Your task to perform on an android device: Go to display settings Image 0: 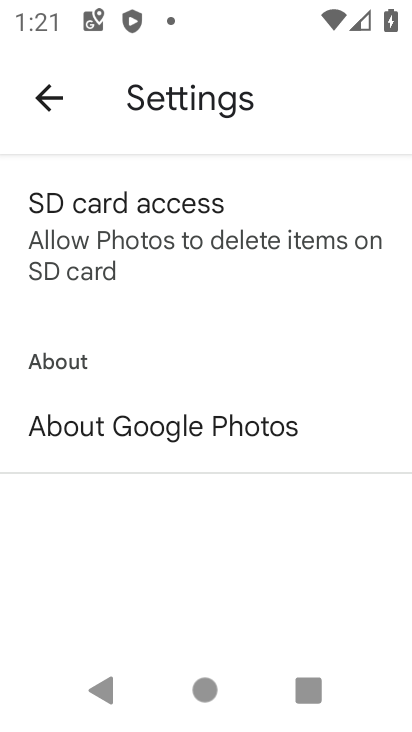
Step 0: press home button
Your task to perform on an android device: Go to display settings Image 1: 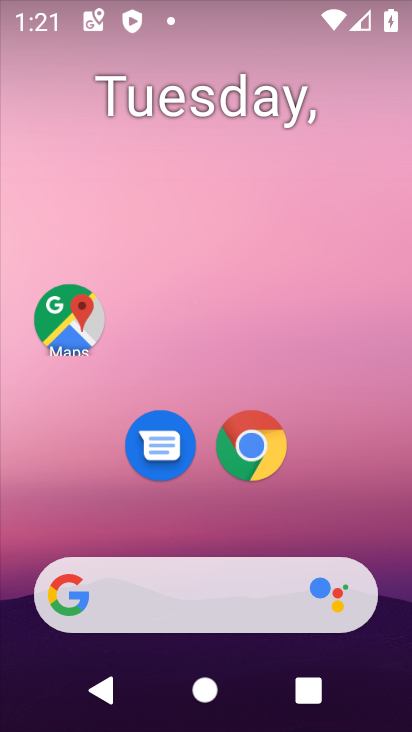
Step 1: drag from (347, 514) to (410, 42)
Your task to perform on an android device: Go to display settings Image 2: 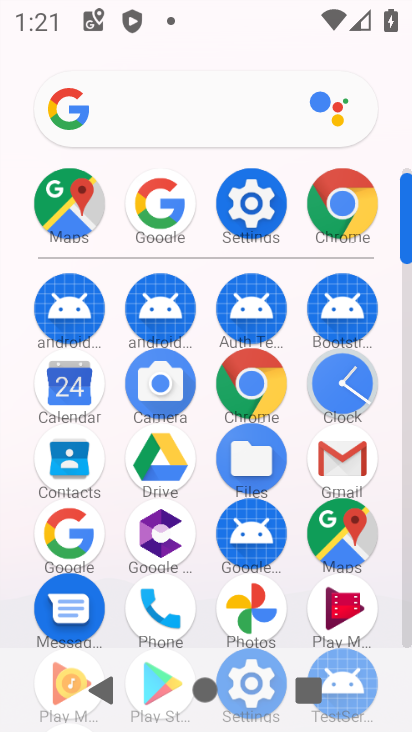
Step 2: click (254, 207)
Your task to perform on an android device: Go to display settings Image 3: 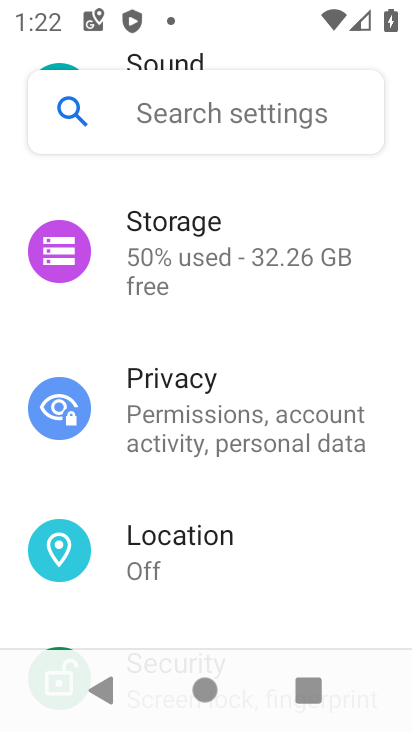
Step 3: drag from (209, 521) to (266, 167)
Your task to perform on an android device: Go to display settings Image 4: 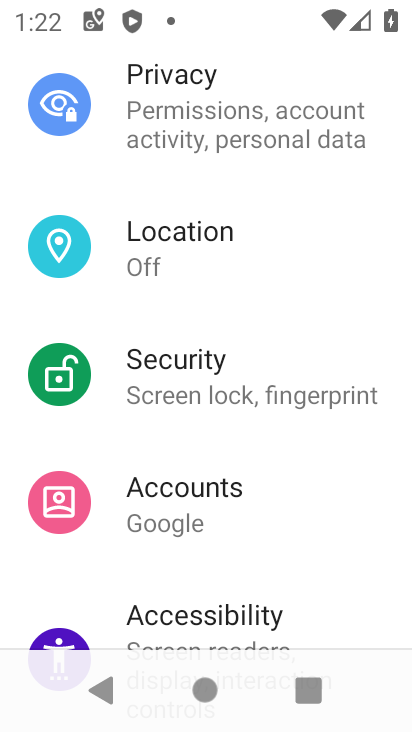
Step 4: drag from (212, 527) to (257, 204)
Your task to perform on an android device: Go to display settings Image 5: 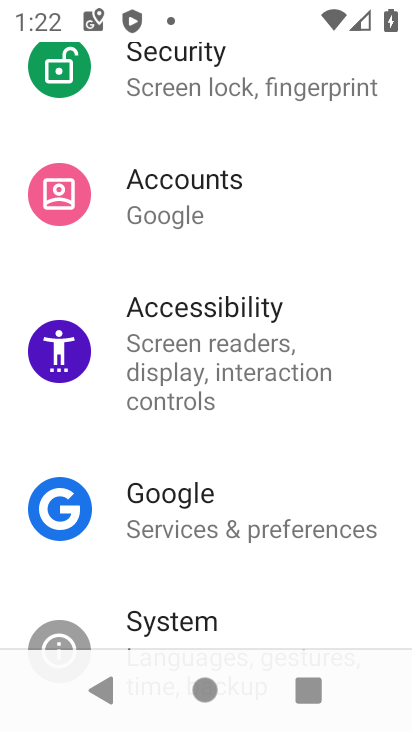
Step 5: drag from (197, 588) to (245, 176)
Your task to perform on an android device: Go to display settings Image 6: 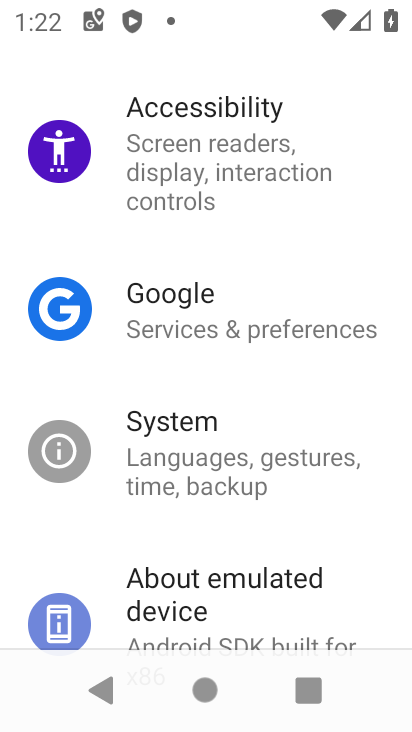
Step 6: drag from (236, 589) to (294, 164)
Your task to perform on an android device: Go to display settings Image 7: 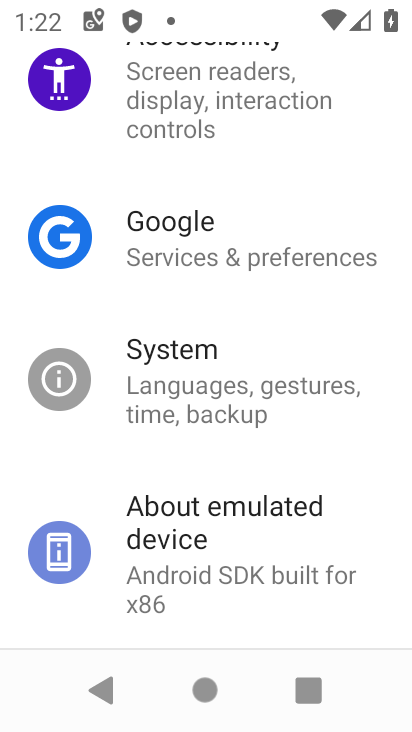
Step 7: drag from (299, 169) to (292, 591)
Your task to perform on an android device: Go to display settings Image 8: 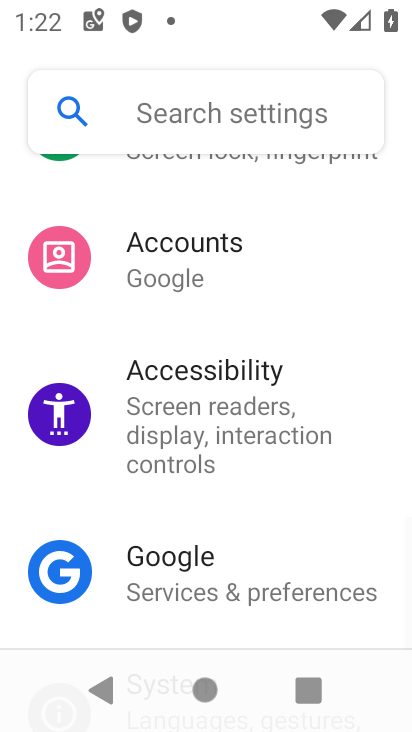
Step 8: drag from (262, 237) to (274, 645)
Your task to perform on an android device: Go to display settings Image 9: 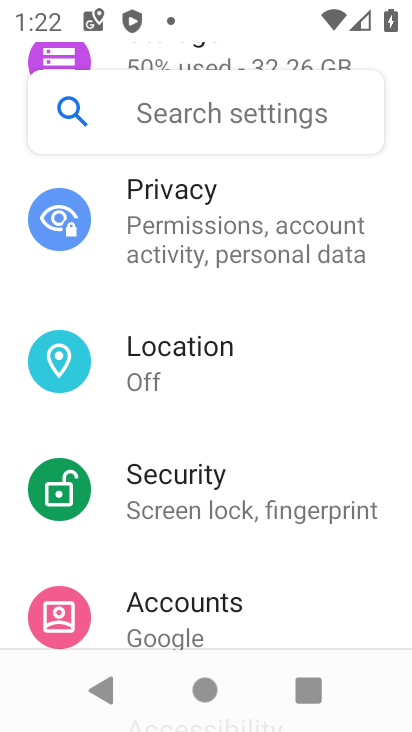
Step 9: drag from (244, 337) to (284, 637)
Your task to perform on an android device: Go to display settings Image 10: 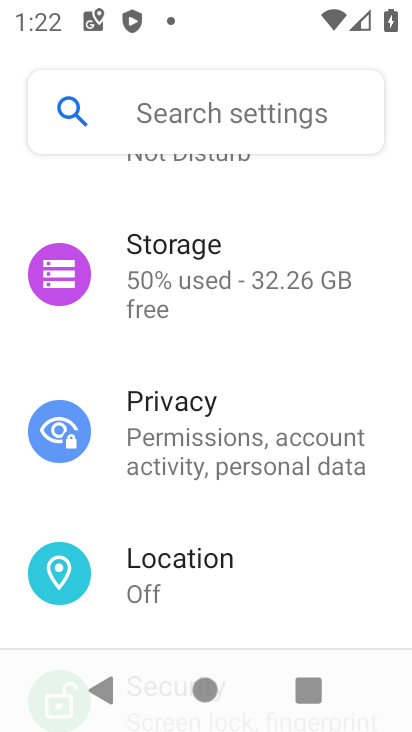
Step 10: drag from (230, 248) to (258, 560)
Your task to perform on an android device: Go to display settings Image 11: 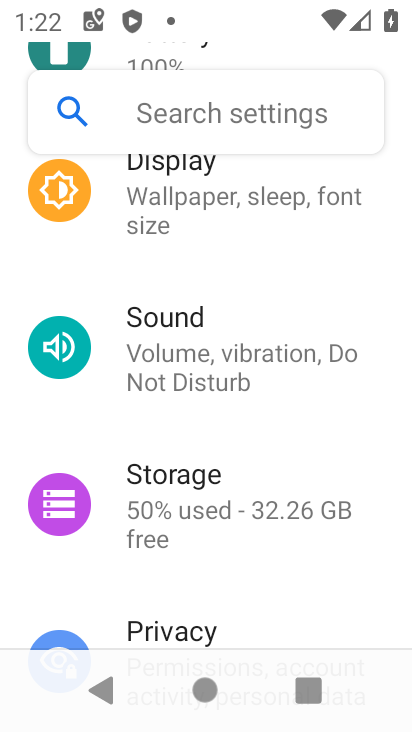
Step 11: click (193, 213)
Your task to perform on an android device: Go to display settings Image 12: 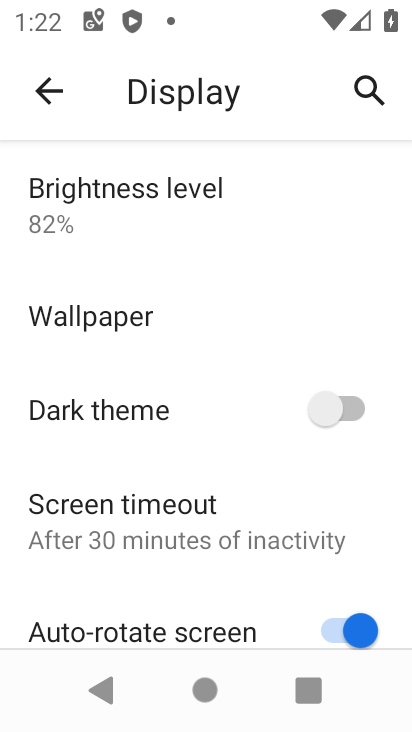
Step 12: task complete